Your task to perform on an android device: What's on my calendar today? Image 0: 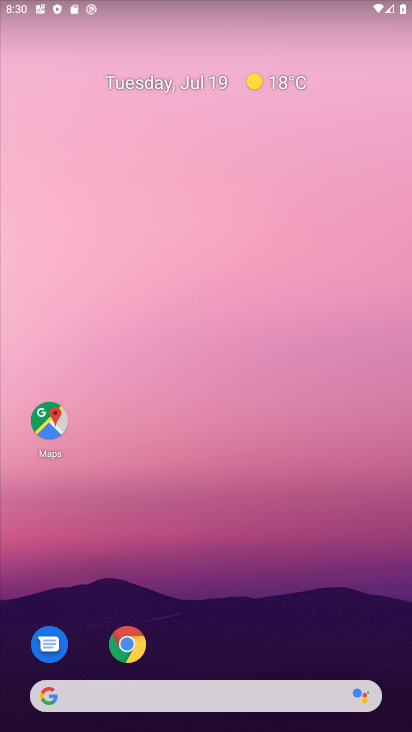
Step 0: drag from (204, 658) to (211, 157)
Your task to perform on an android device: What's on my calendar today? Image 1: 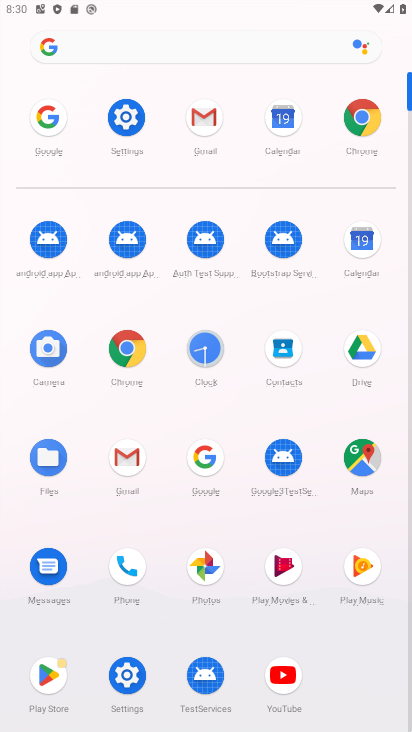
Step 1: click (371, 243)
Your task to perform on an android device: What's on my calendar today? Image 2: 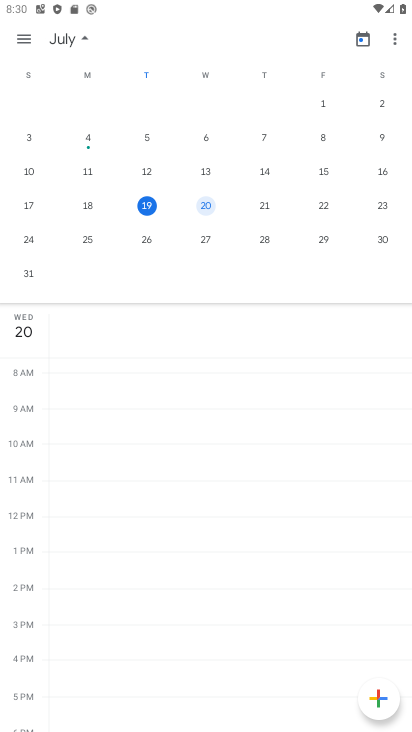
Step 2: click (145, 201)
Your task to perform on an android device: What's on my calendar today? Image 3: 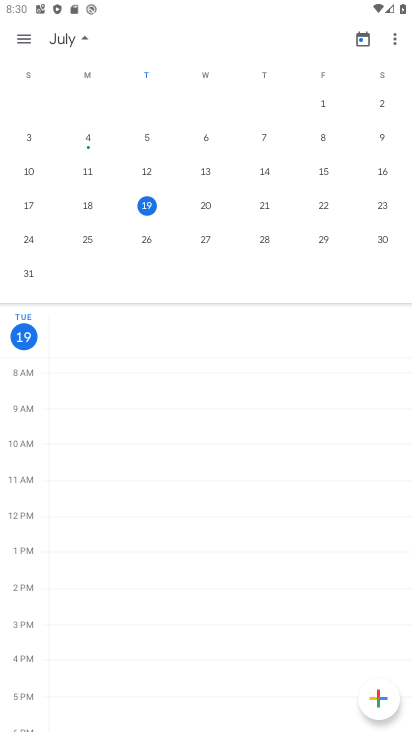
Step 3: click (148, 208)
Your task to perform on an android device: What's on my calendar today? Image 4: 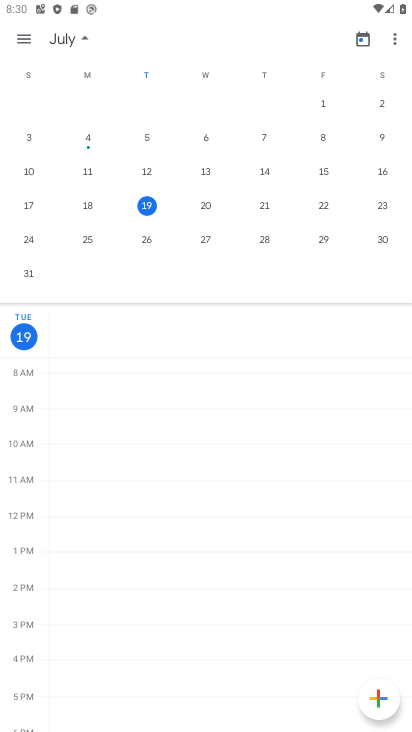
Step 4: click (25, 337)
Your task to perform on an android device: What's on my calendar today? Image 5: 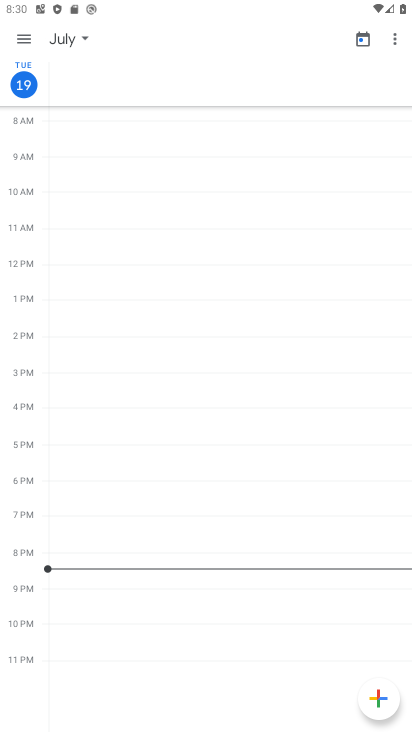
Step 5: task complete